Your task to perform on an android device: Empty the shopping cart on amazon. Search for "macbook" on amazon, select the first entry, and add it to the cart. Image 0: 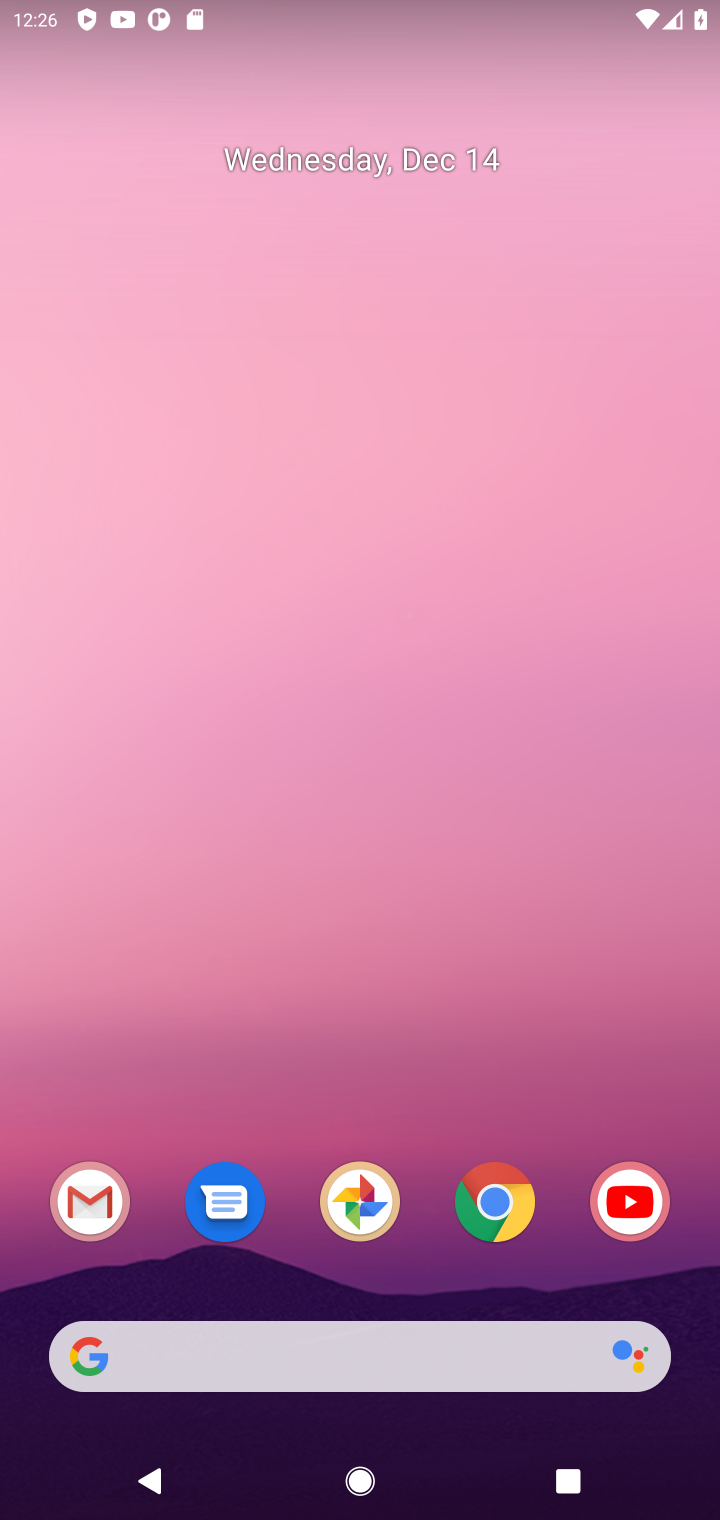
Step 0: click (477, 1223)
Your task to perform on an android device: Empty the shopping cart on amazon. Search for "macbook" on amazon, select the first entry, and add it to the cart. Image 1: 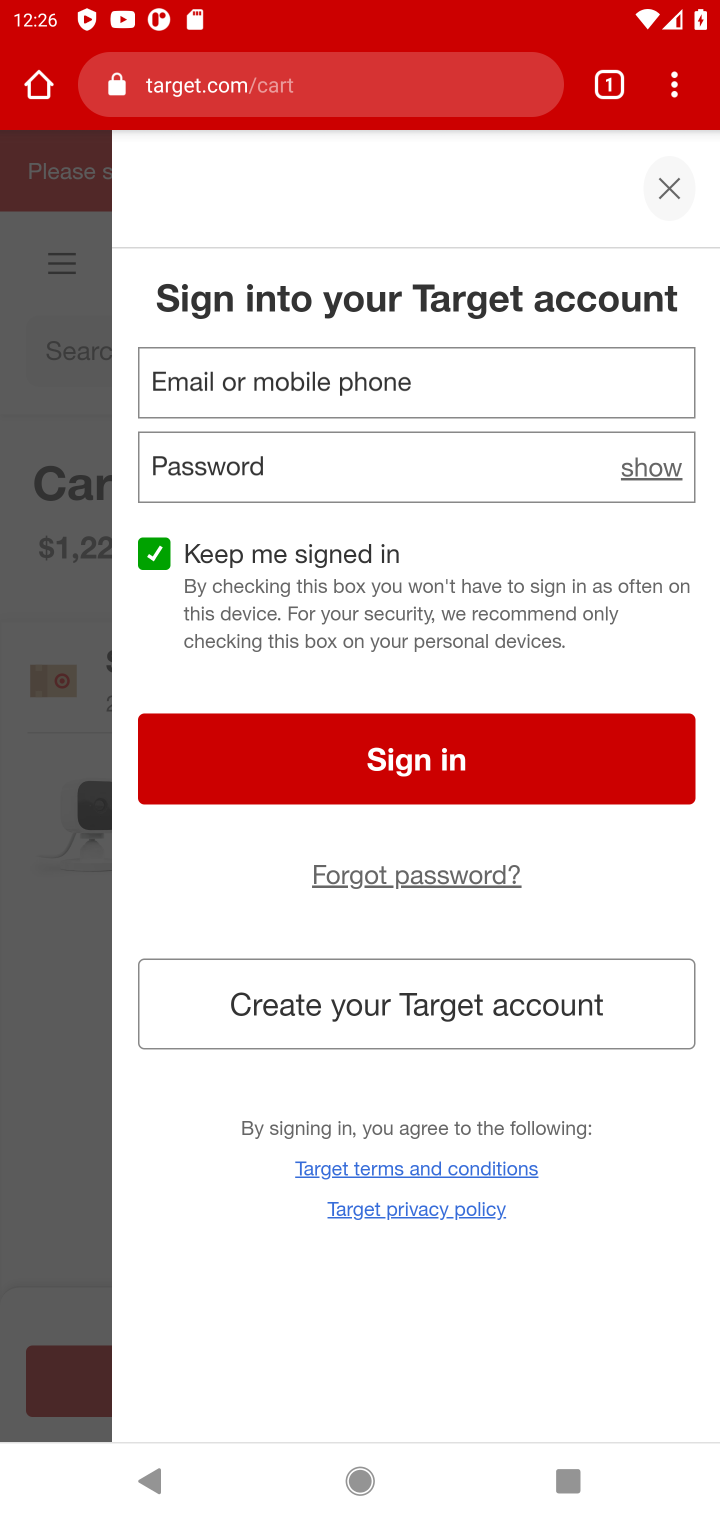
Step 1: click (332, 98)
Your task to perform on an android device: Empty the shopping cart on amazon. Search for "macbook" on amazon, select the first entry, and add it to the cart. Image 2: 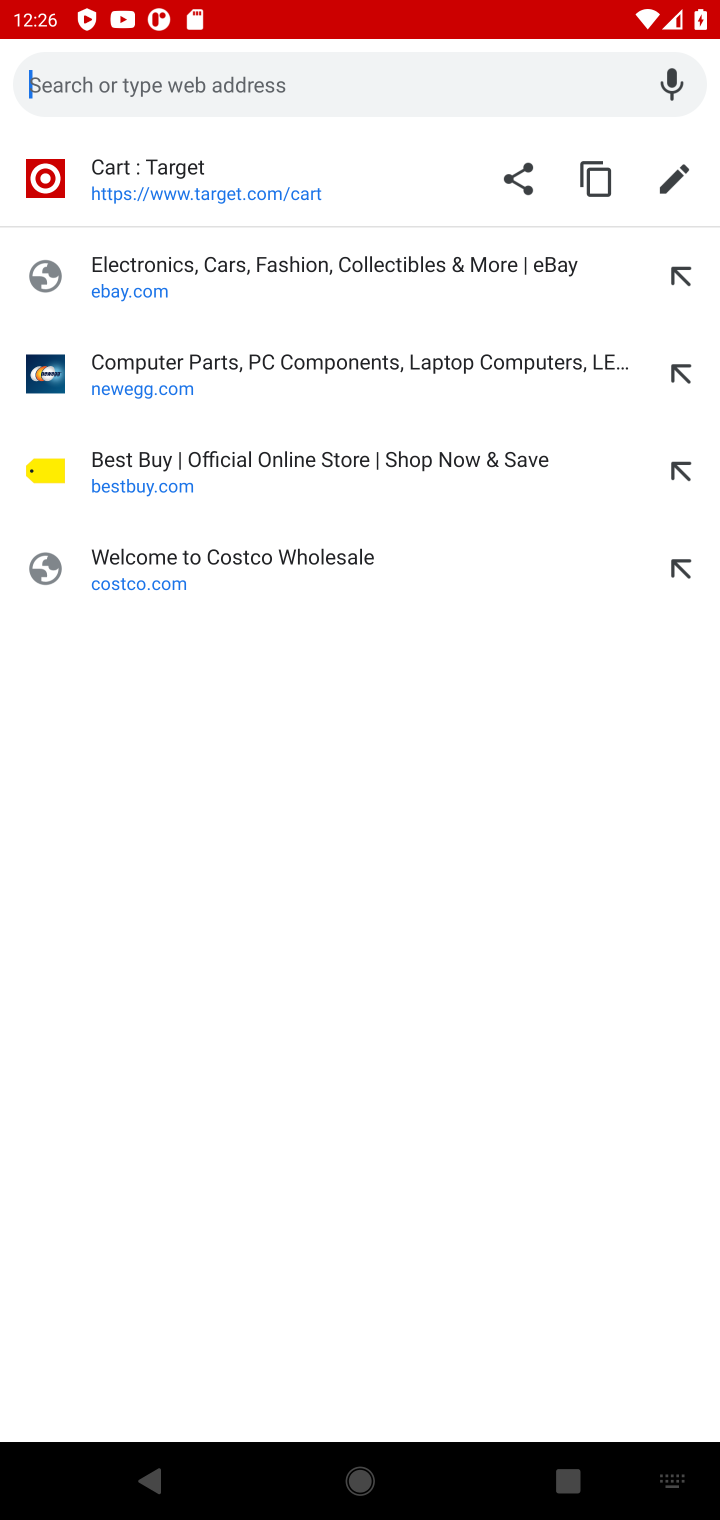
Step 2: type "amazon"
Your task to perform on an android device: Empty the shopping cart on amazon. Search for "macbook" on amazon, select the first entry, and add it to the cart. Image 3: 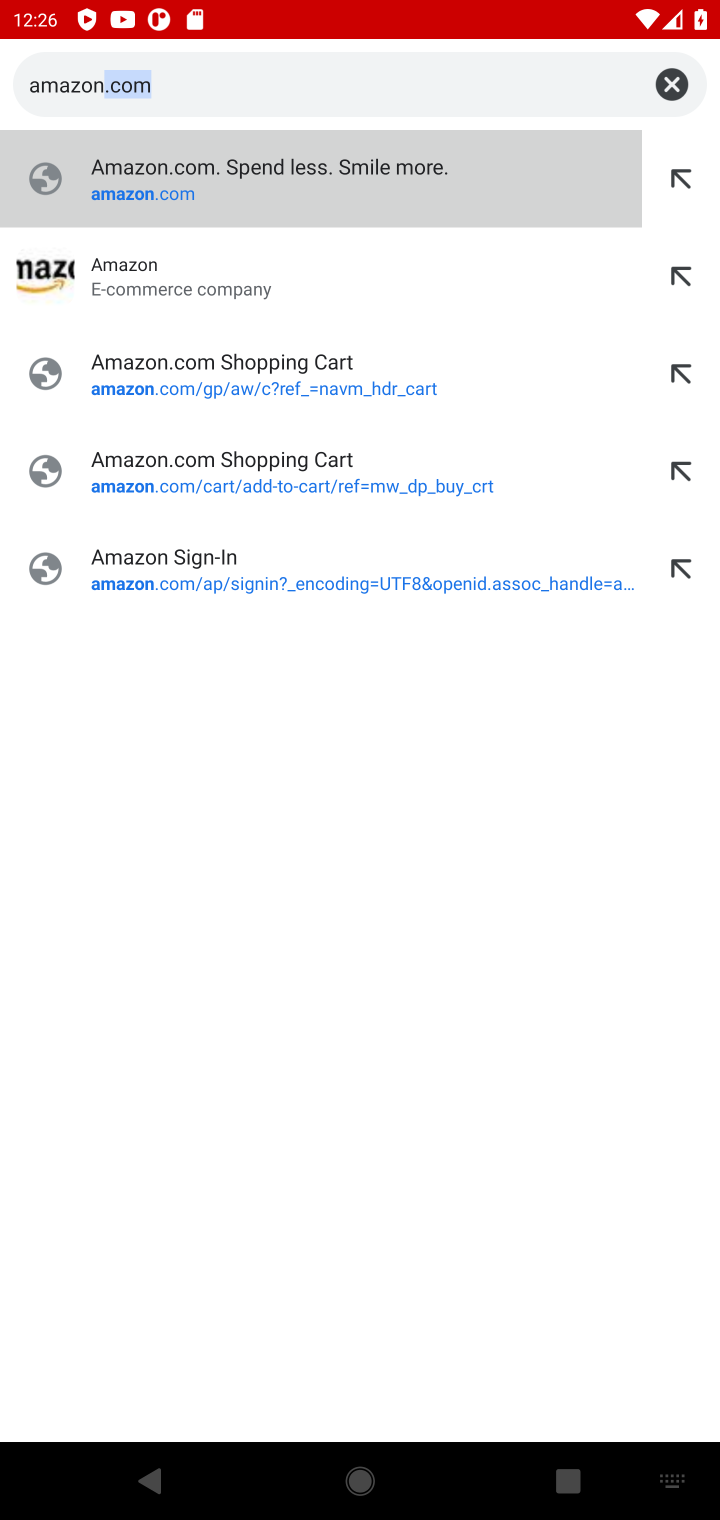
Step 3: click (223, 174)
Your task to perform on an android device: Empty the shopping cart on amazon. Search for "macbook" on amazon, select the first entry, and add it to the cart. Image 4: 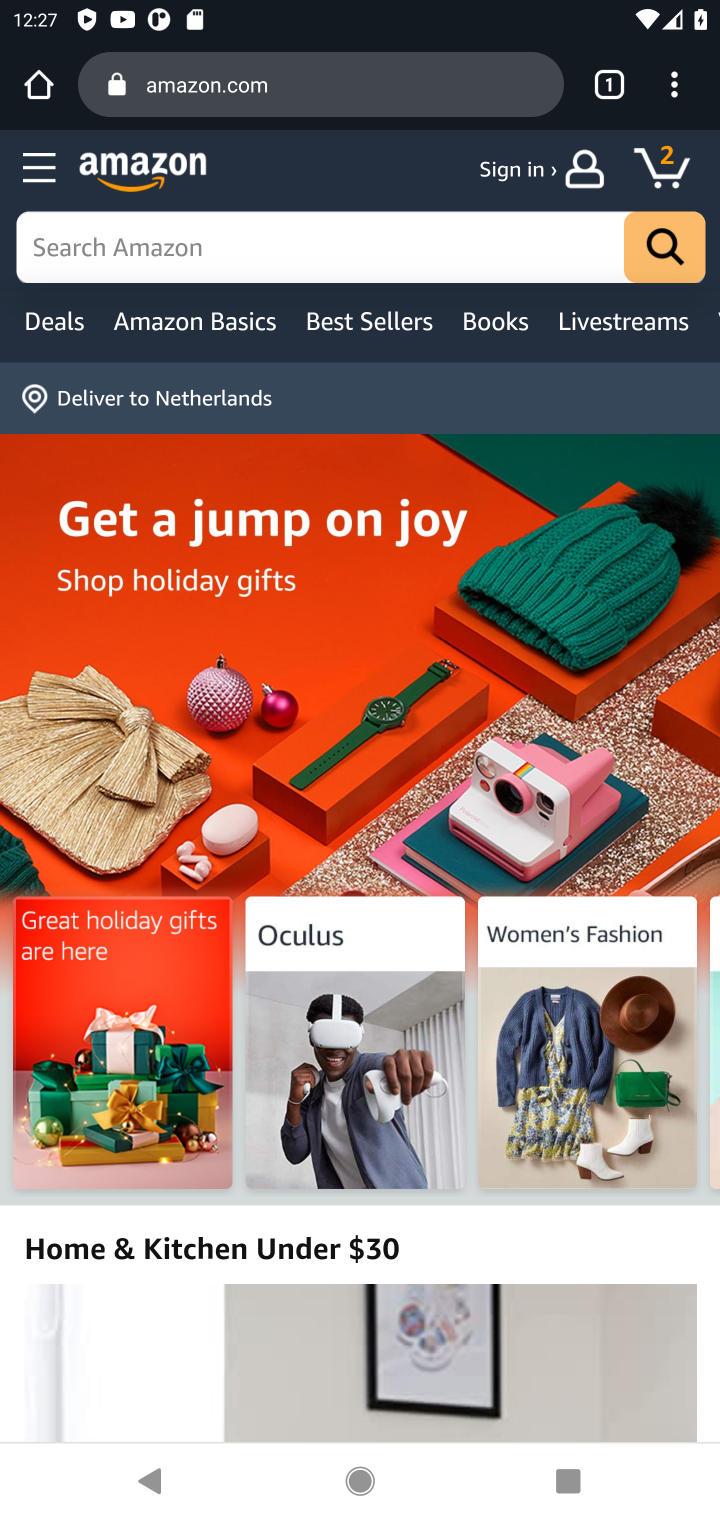
Step 4: click (657, 153)
Your task to perform on an android device: Empty the shopping cart on amazon. Search for "macbook" on amazon, select the first entry, and add it to the cart. Image 5: 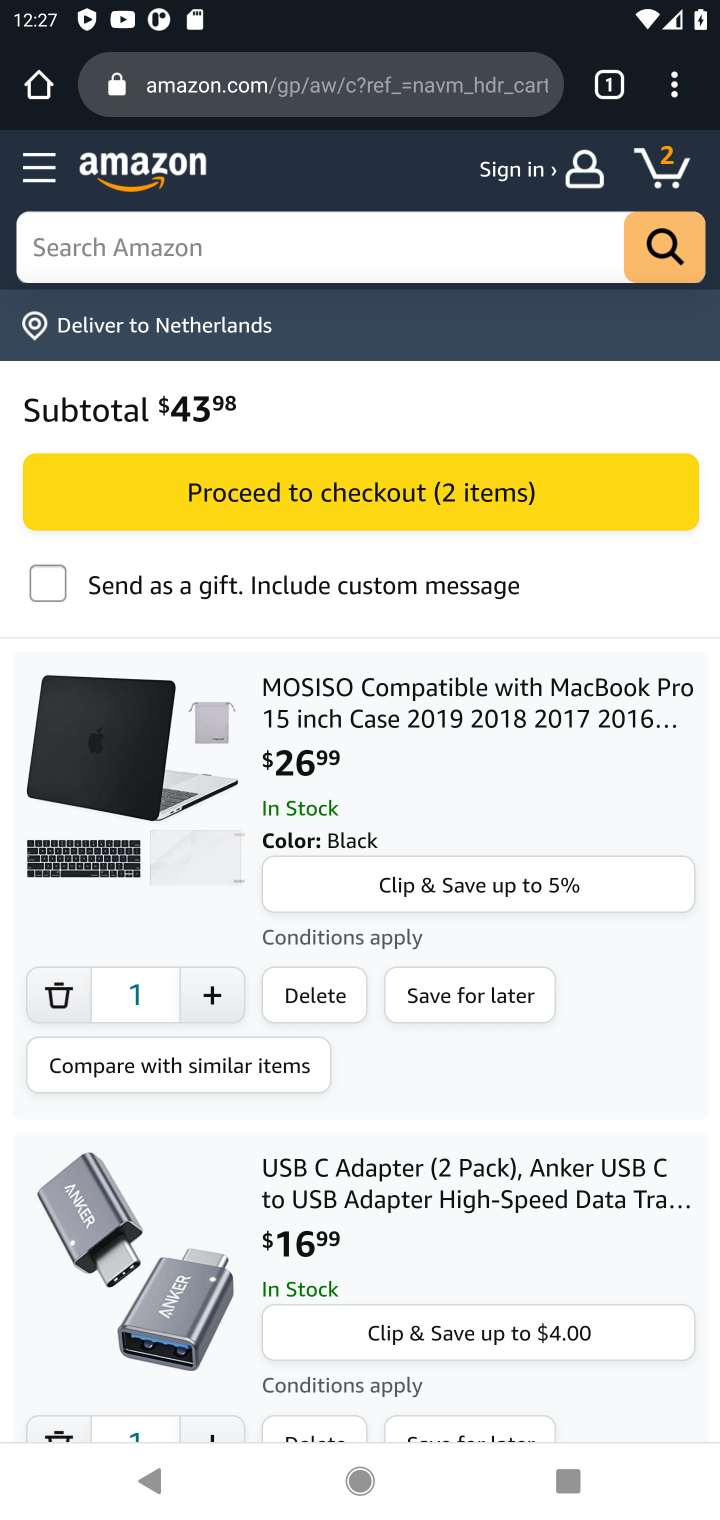
Step 5: click (70, 992)
Your task to perform on an android device: Empty the shopping cart on amazon. Search for "macbook" on amazon, select the first entry, and add it to the cart. Image 6: 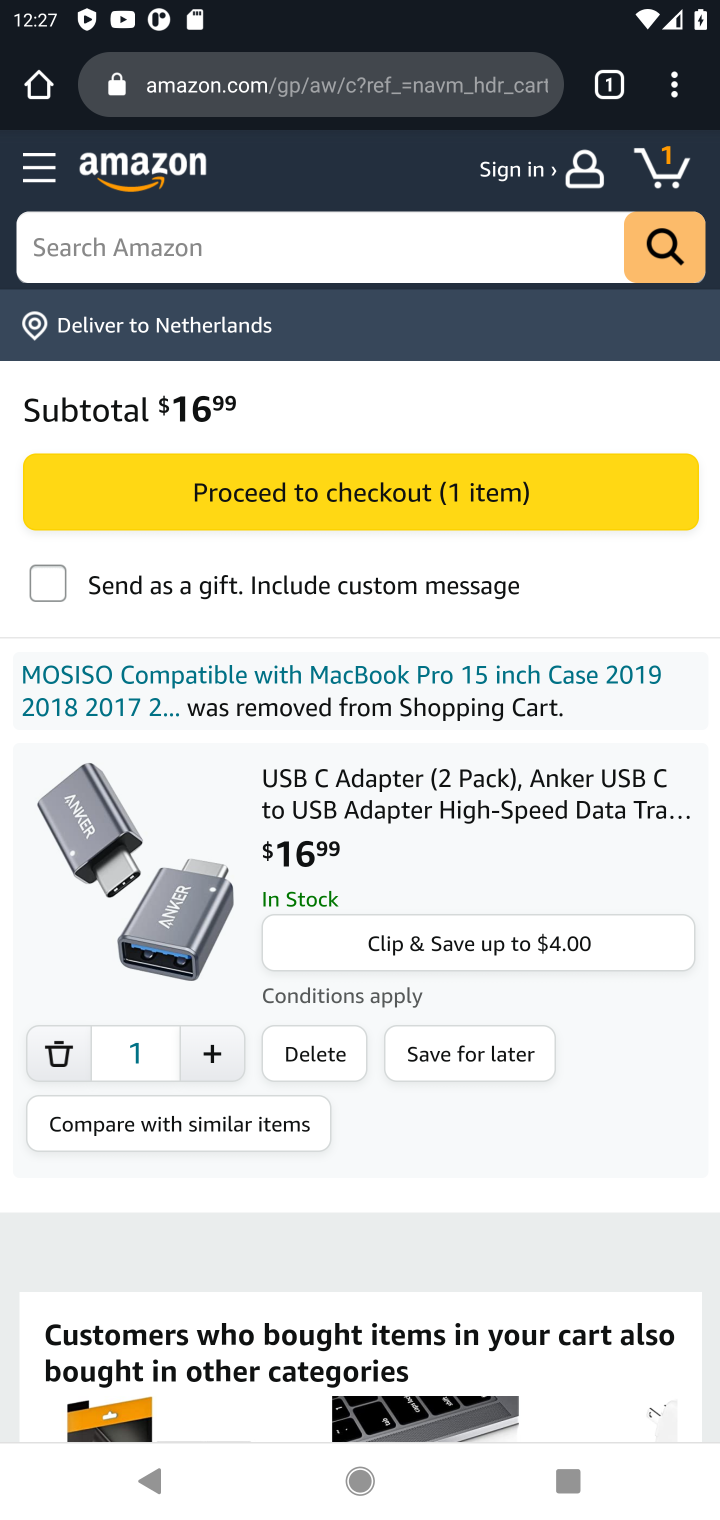
Step 6: click (58, 1057)
Your task to perform on an android device: Empty the shopping cart on amazon. Search for "macbook" on amazon, select the first entry, and add it to the cart. Image 7: 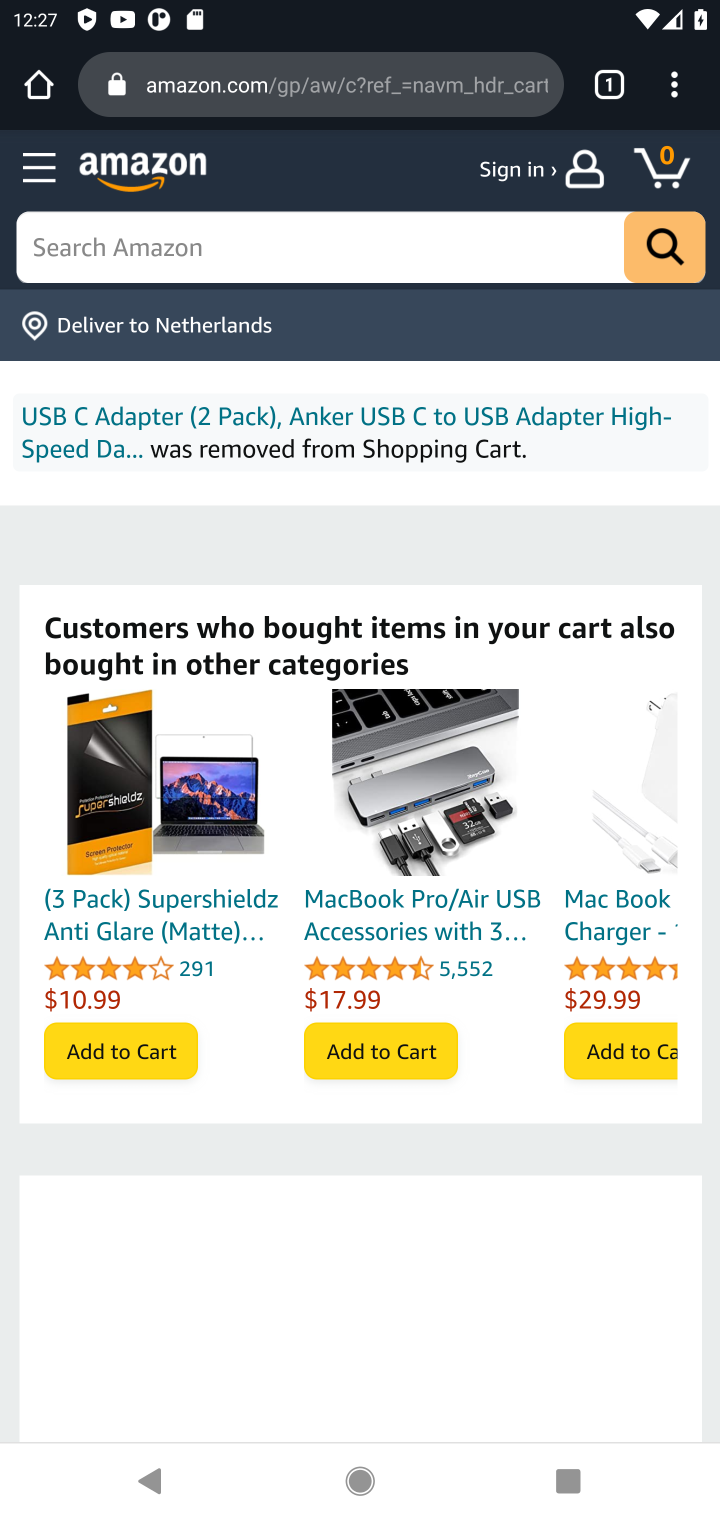
Step 7: click (400, 251)
Your task to perform on an android device: Empty the shopping cart on amazon. Search for "macbook" on amazon, select the first entry, and add it to the cart. Image 8: 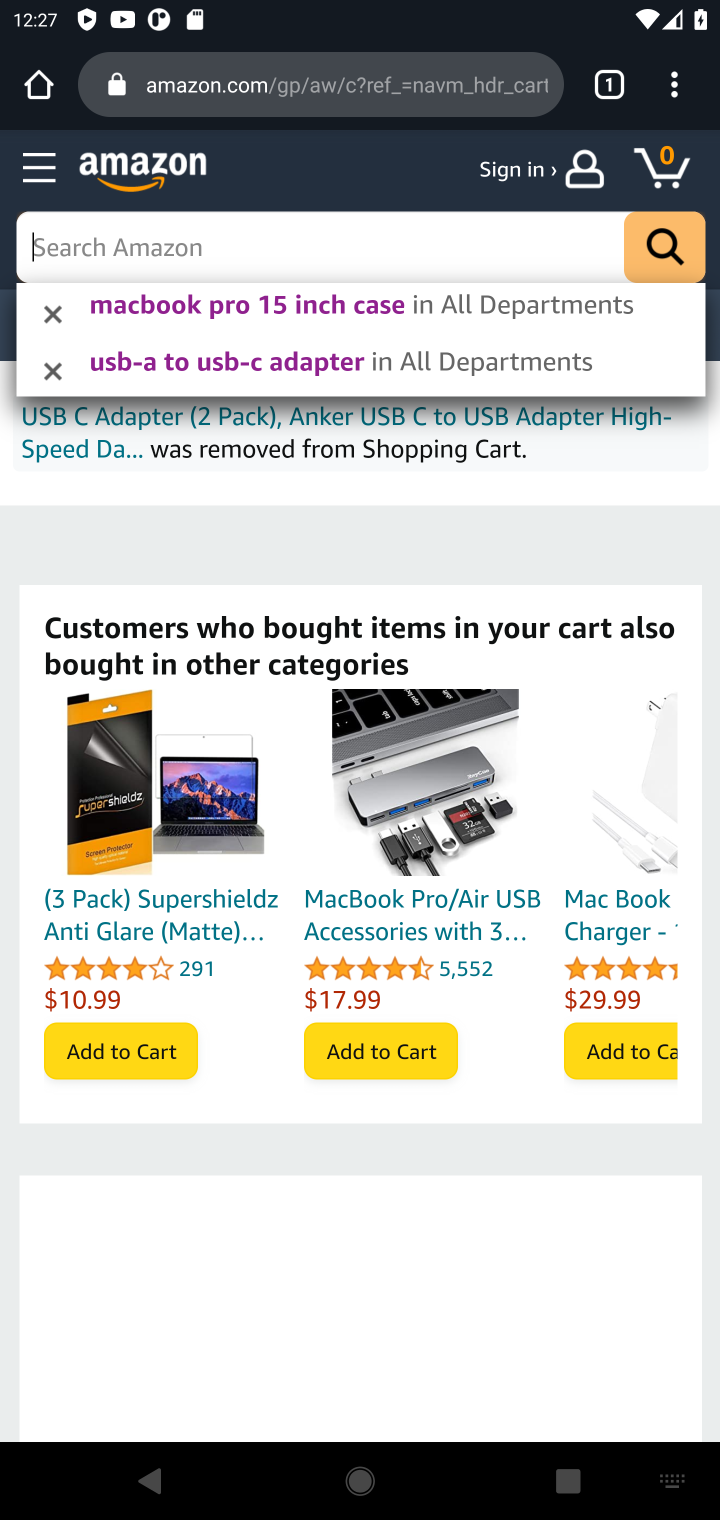
Step 8: type "macbook"
Your task to perform on an android device: Empty the shopping cart on amazon. Search for "macbook" on amazon, select the first entry, and add it to the cart. Image 9: 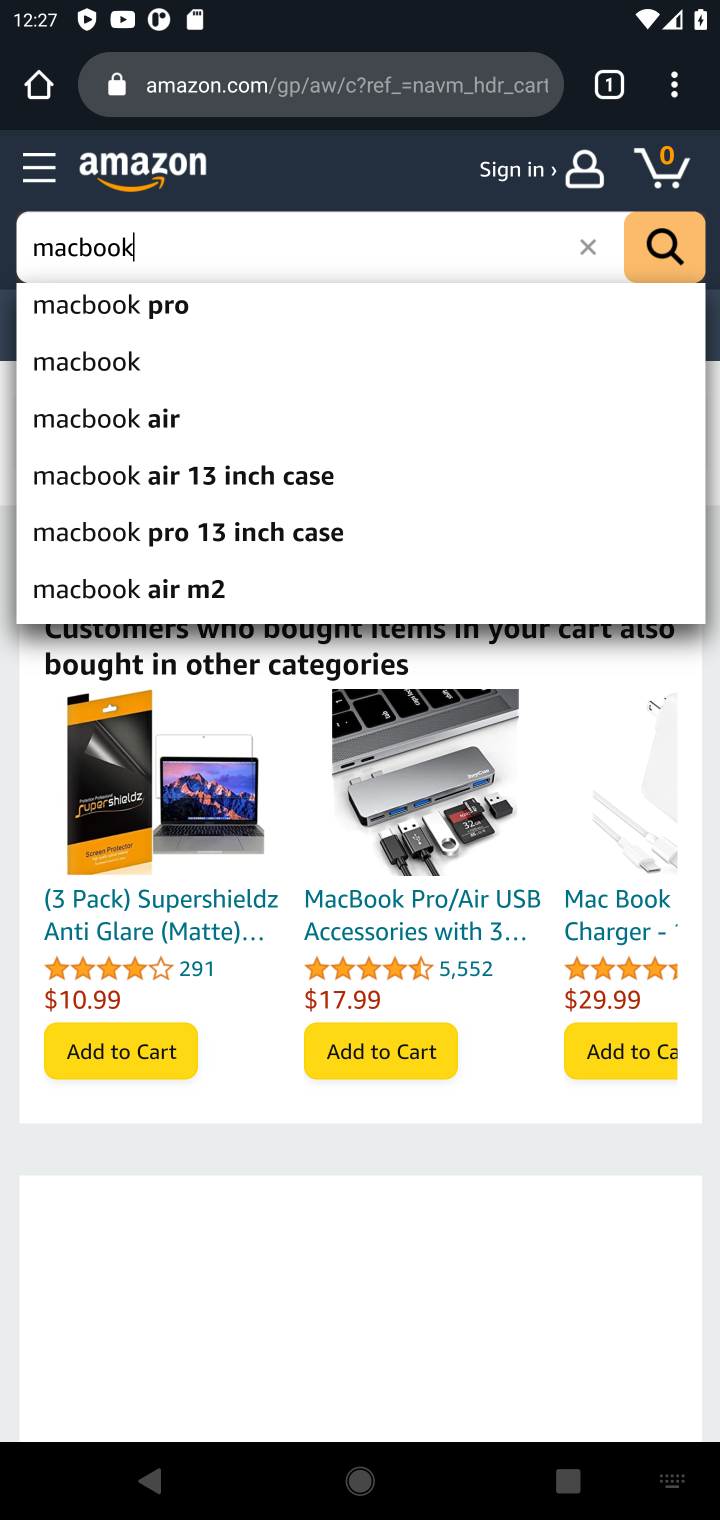
Step 9: click (135, 306)
Your task to perform on an android device: Empty the shopping cart on amazon. Search for "macbook" on amazon, select the first entry, and add it to the cart. Image 10: 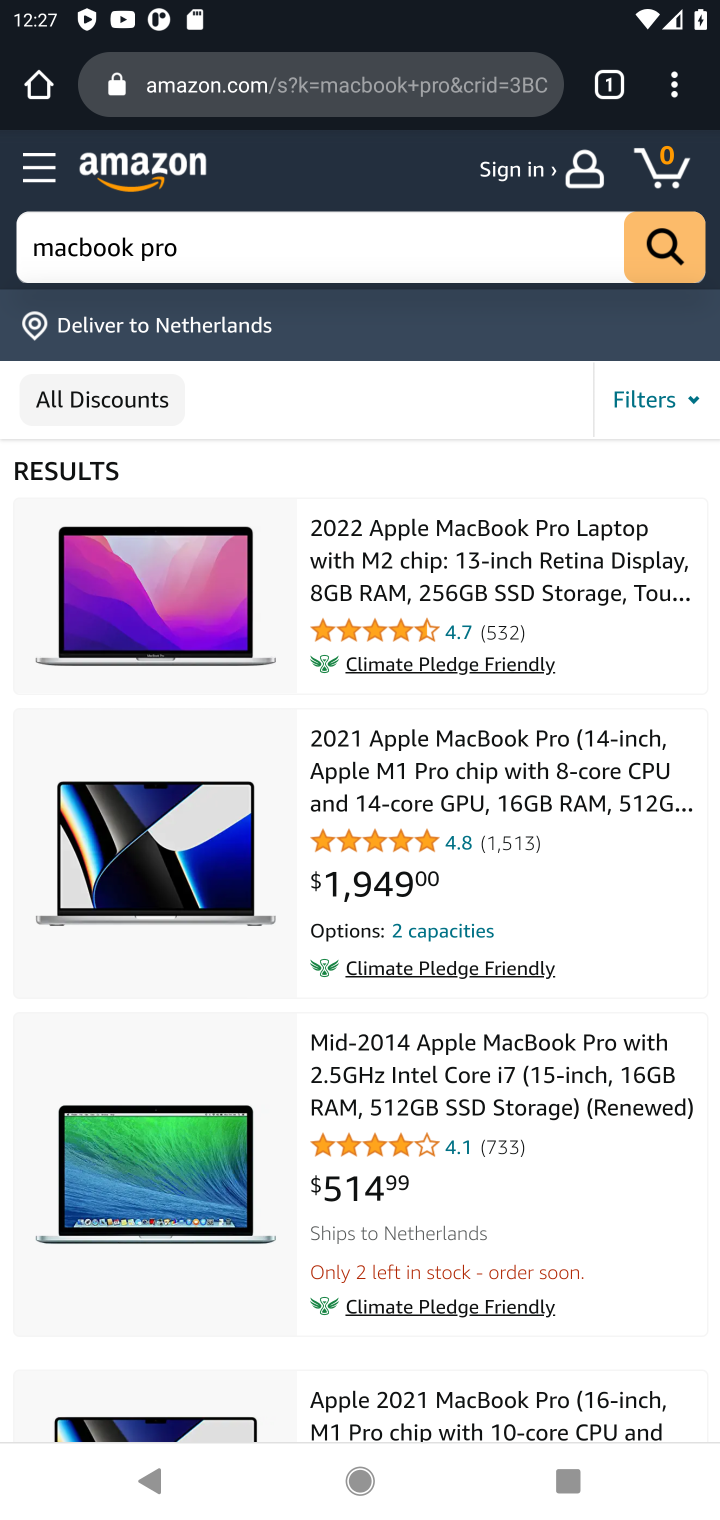
Step 10: click (518, 581)
Your task to perform on an android device: Empty the shopping cart on amazon. Search for "macbook" on amazon, select the first entry, and add it to the cart. Image 11: 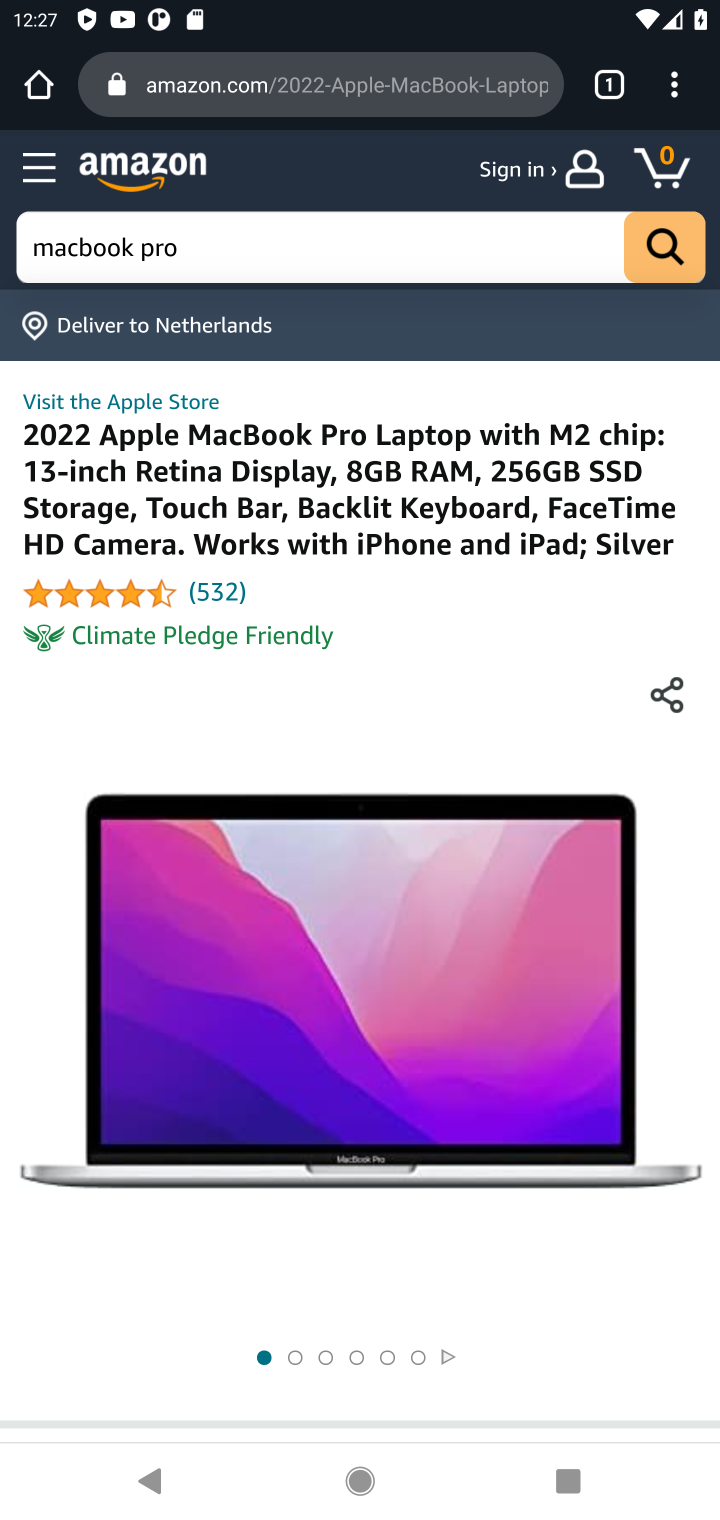
Step 11: drag from (477, 1243) to (448, 481)
Your task to perform on an android device: Empty the shopping cart on amazon. Search for "macbook" on amazon, select the first entry, and add it to the cart. Image 12: 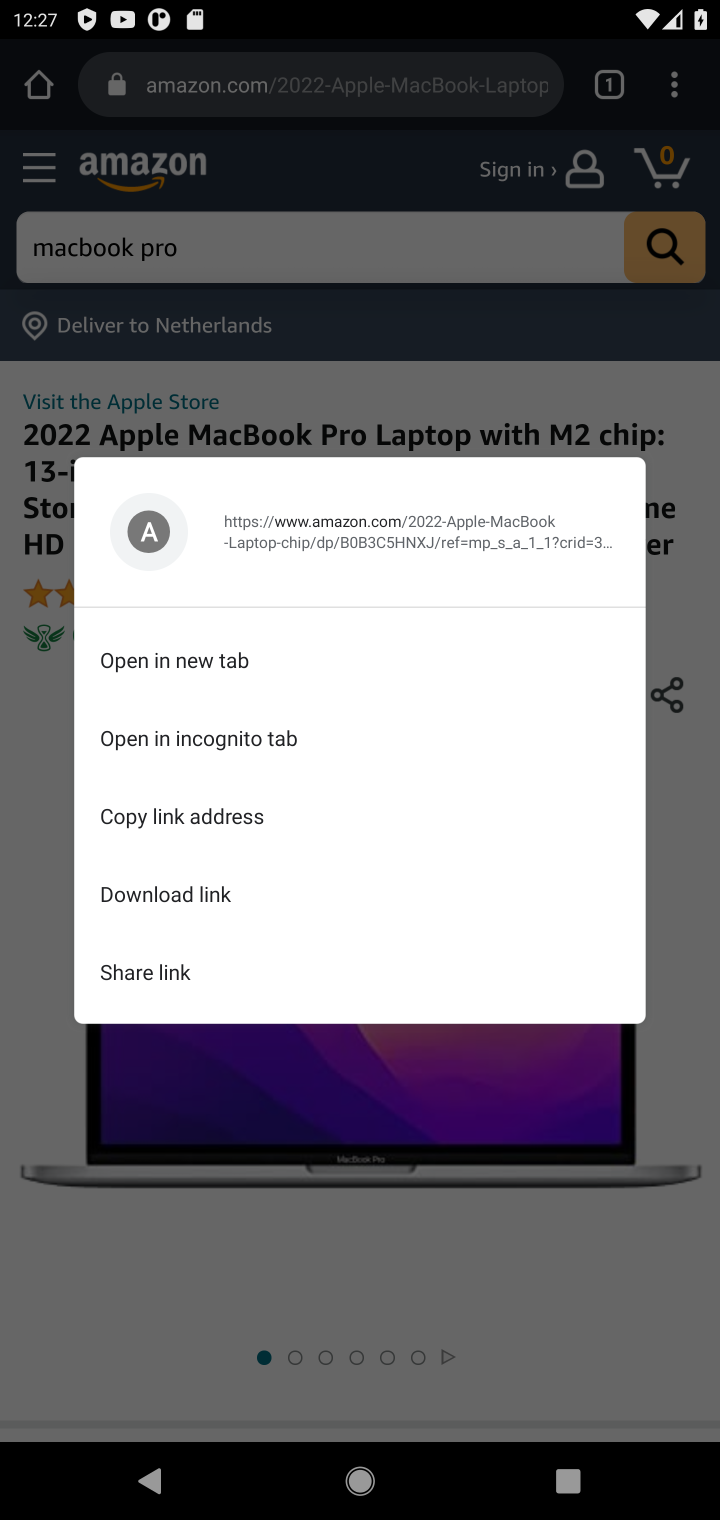
Step 12: click (634, 1099)
Your task to perform on an android device: Empty the shopping cart on amazon. Search for "macbook" on amazon, select the first entry, and add it to the cart. Image 13: 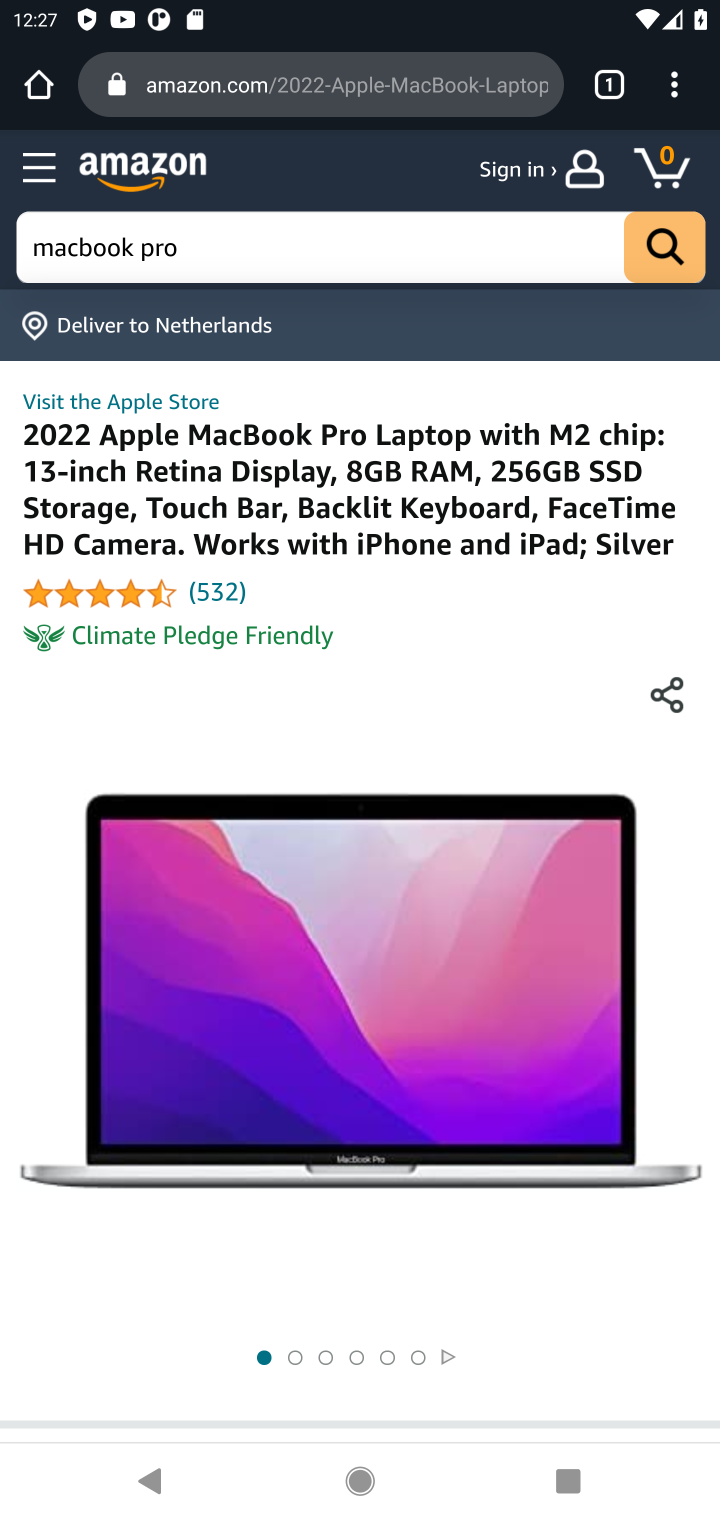
Step 13: task complete